Your task to perform on an android device: Open Chrome and go to settings Image 0: 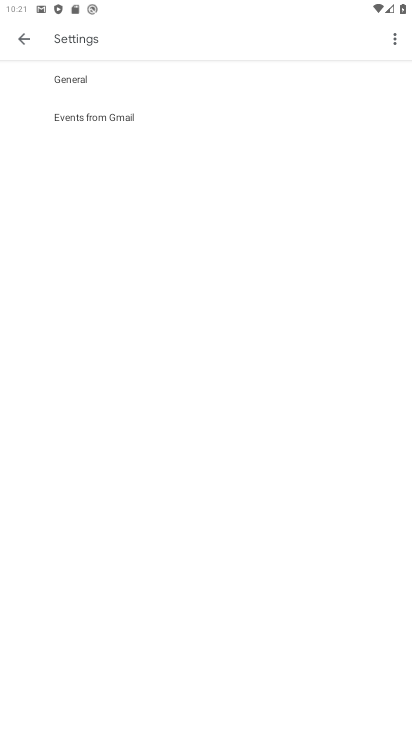
Step 0: press home button
Your task to perform on an android device: Open Chrome and go to settings Image 1: 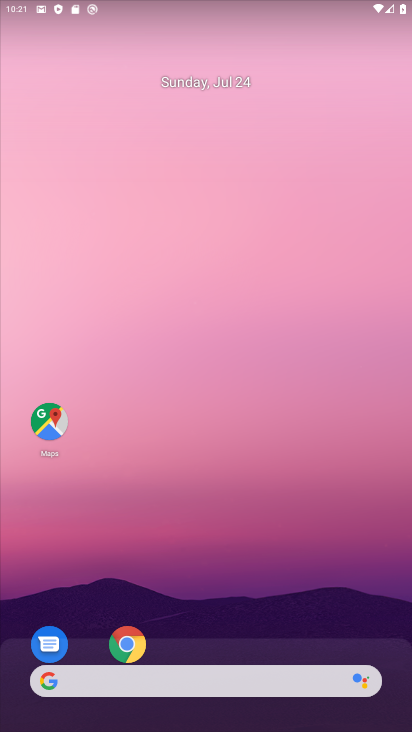
Step 1: click (140, 643)
Your task to perform on an android device: Open Chrome and go to settings Image 2: 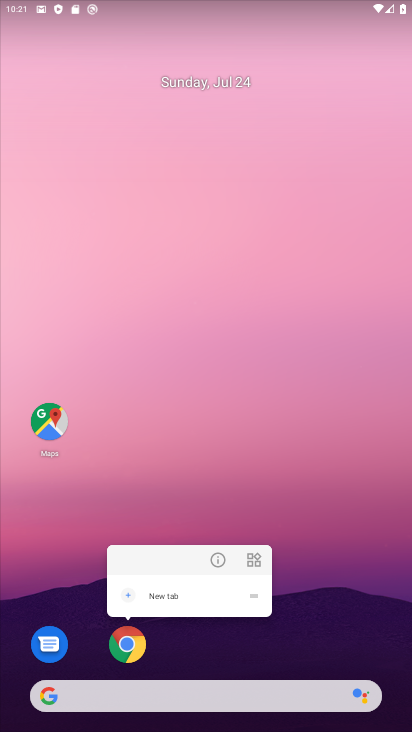
Step 2: click (140, 643)
Your task to perform on an android device: Open Chrome and go to settings Image 3: 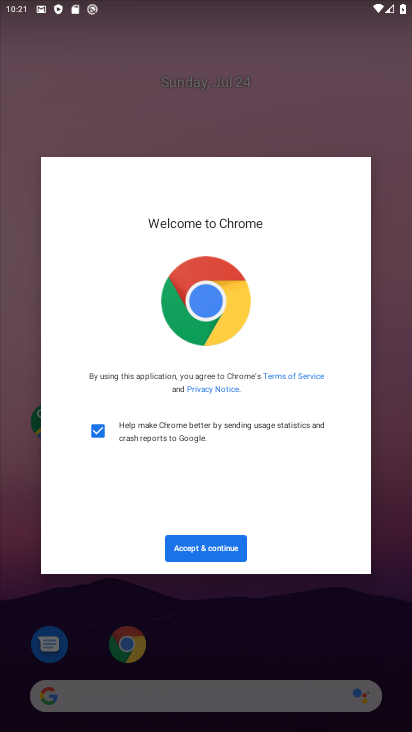
Step 3: click (221, 553)
Your task to perform on an android device: Open Chrome and go to settings Image 4: 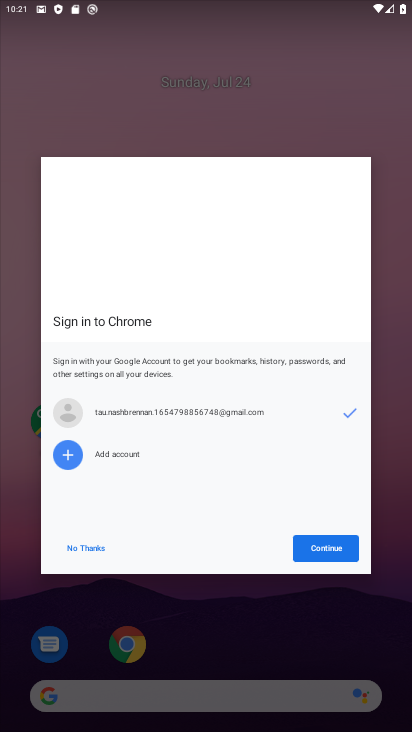
Step 4: click (303, 554)
Your task to perform on an android device: Open Chrome and go to settings Image 5: 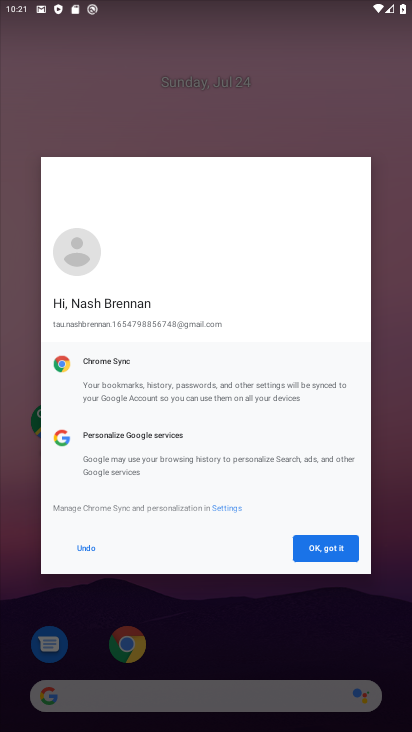
Step 5: click (303, 554)
Your task to perform on an android device: Open Chrome and go to settings Image 6: 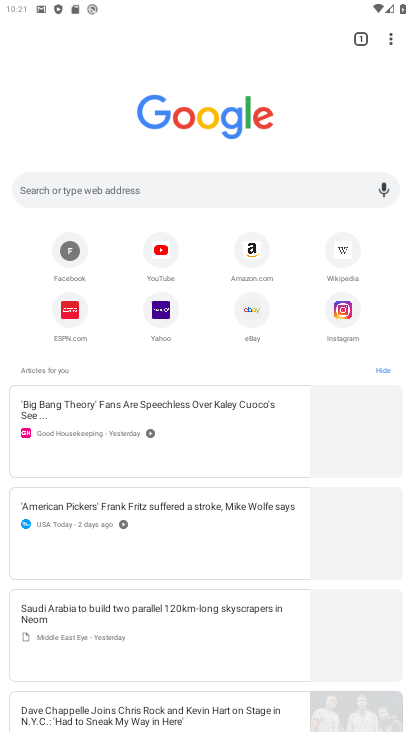
Step 6: click (391, 40)
Your task to perform on an android device: Open Chrome and go to settings Image 7: 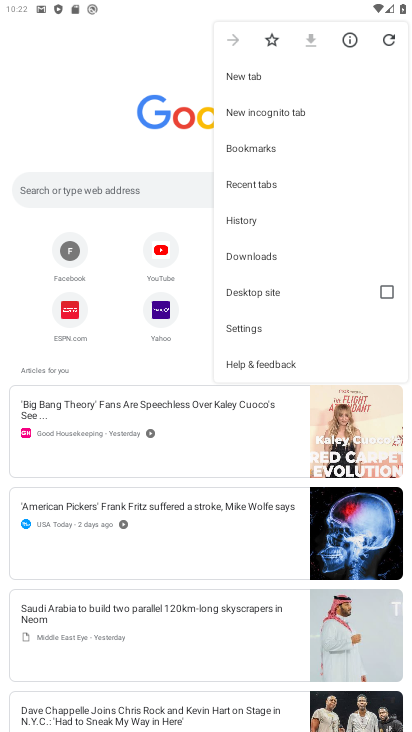
Step 7: click (288, 324)
Your task to perform on an android device: Open Chrome and go to settings Image 8: 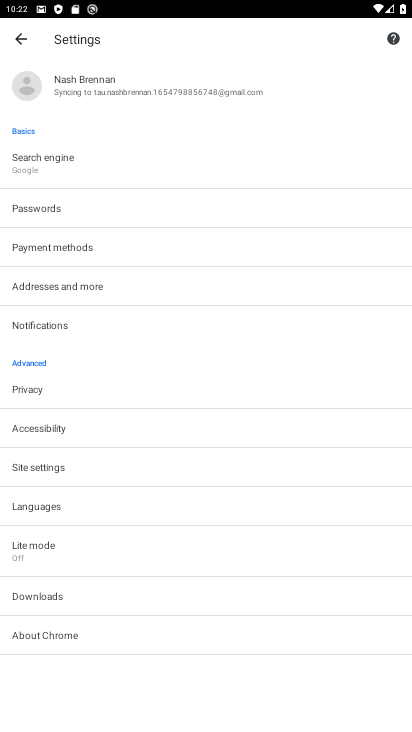
Step 8: task complete